Your task to perform on an android device: What's the weather? Image 0: 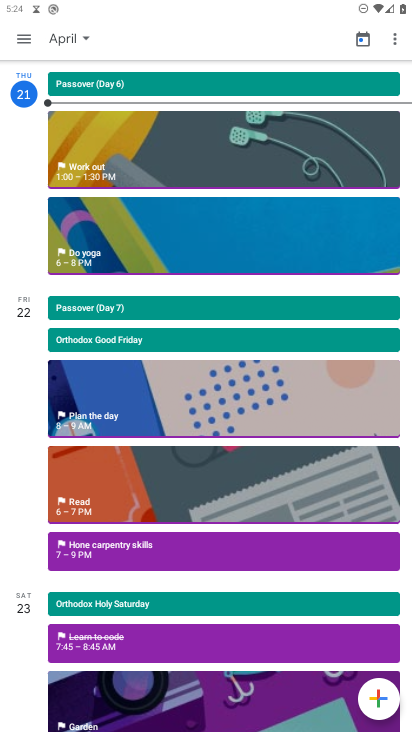
Step 0: press home button
Your task to perform on an android device: What's the weather? Image 1: 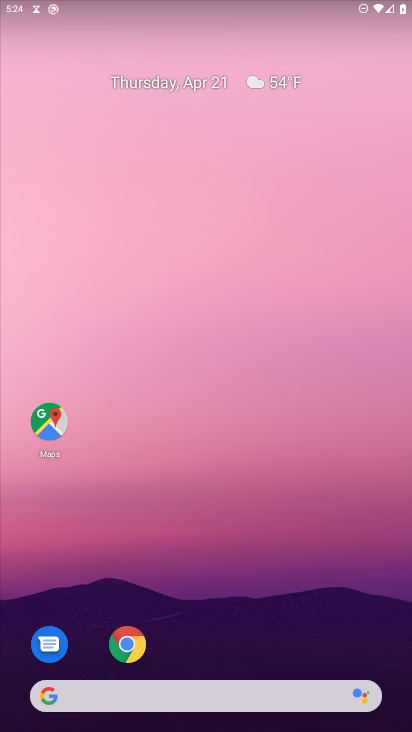
Step 1: drag from (248, 675) to (312, 223)
Your task to perform on an android device: What's the weather? Image 2: 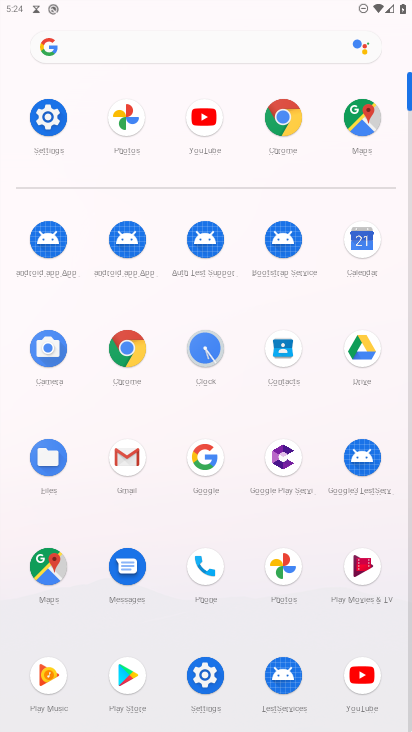
Step 2: click (201, 459)
Your task to perform on an android device: What's the weather? Image 3: 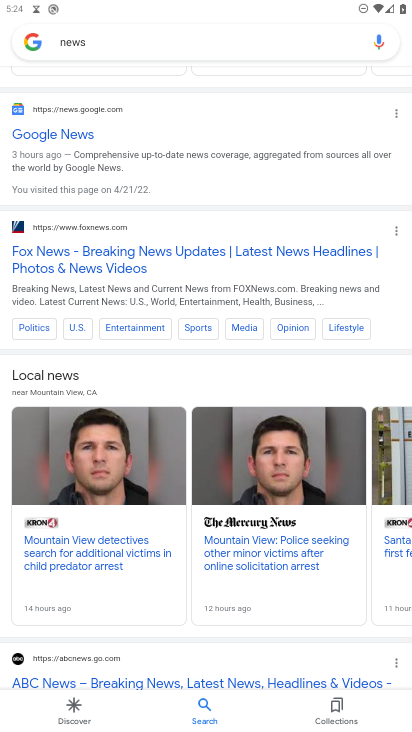
Step 3: task complete